Your task to perform on an android device: set the timer Image 0: 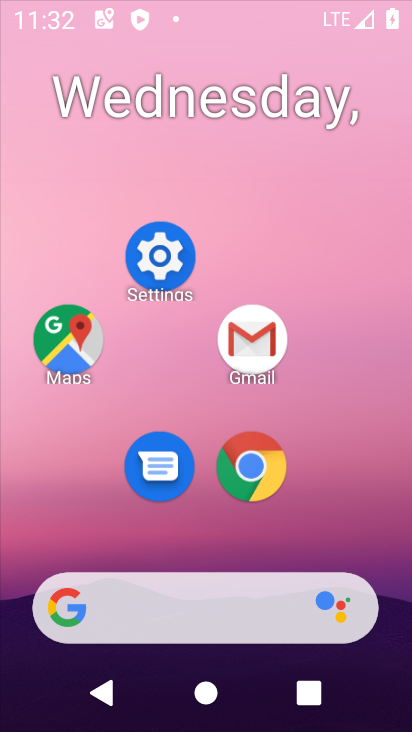
Step 0: click (277, 83)
Your task to perform on an android device: set the timer Image 1: 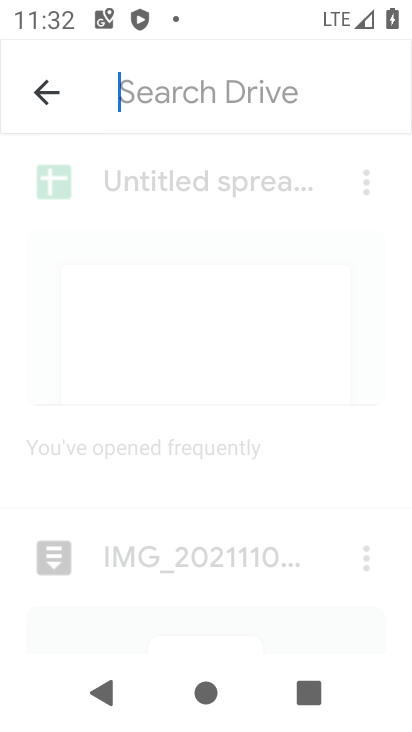
Step 1: drag from (171, 526) to (226, 145)
Your task to perform on an android device: set the timer Image 2: 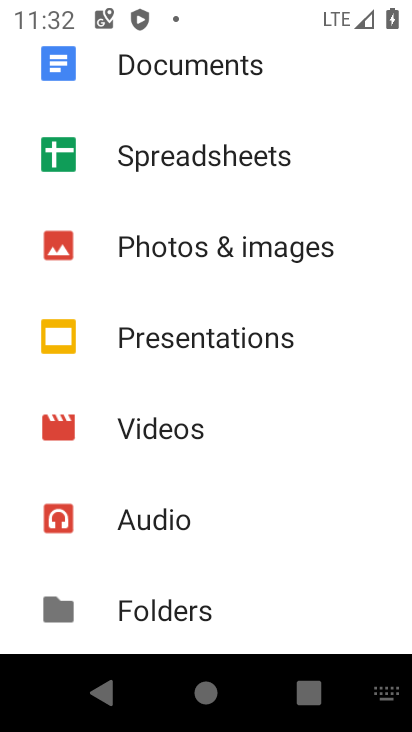
Step 2: press home button
Your task to perform on an android device: set the timer Image 3: 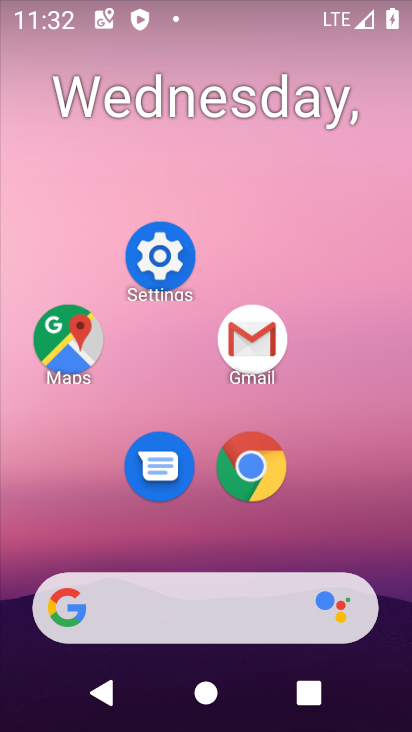
Step 3: drag from (176, 454) to (243, 147)
Your task to perform on an android device: set the timer Image 4: 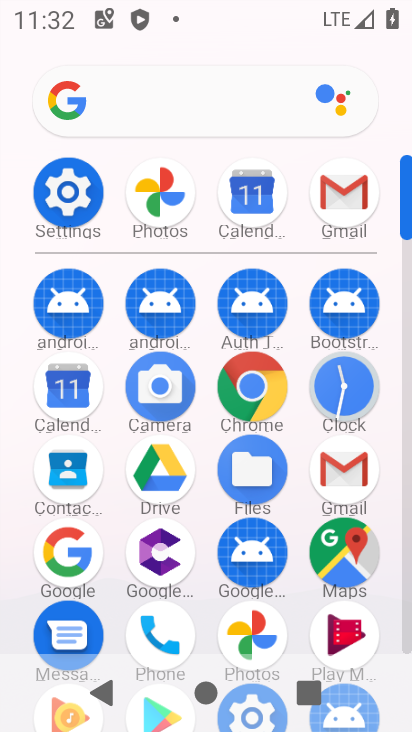
Step 4: click (349, 385)
Your task to perform on an android device: set the timer Image 5: 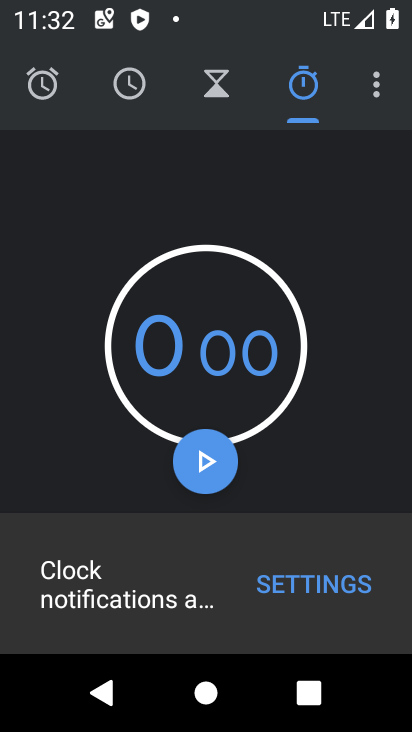
Step 5: click (372, 98)
Your task to perform on an android device: set the timer Image 6: 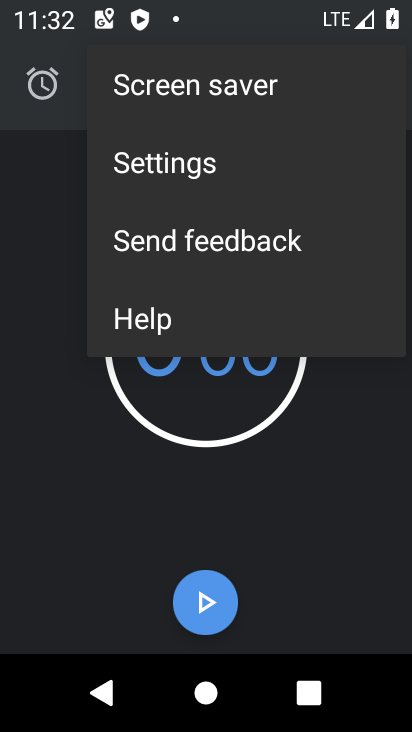
Step 6: click (380, 79)
Your task to perform on an android device: set the timer Image 7: 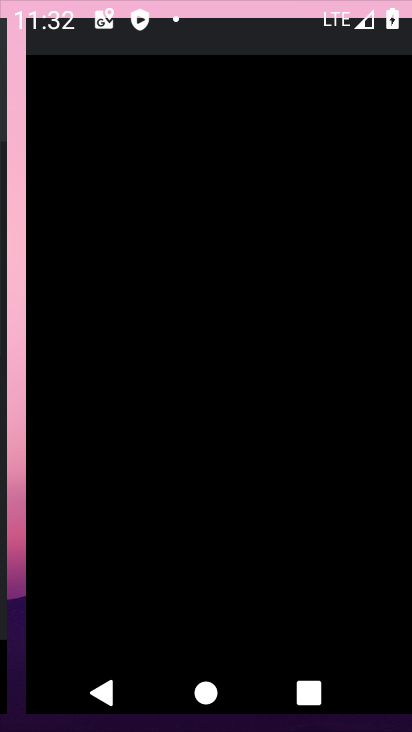
Step 7: click (204, 173)
Your task to perform on an android device: set the timer Image 8: 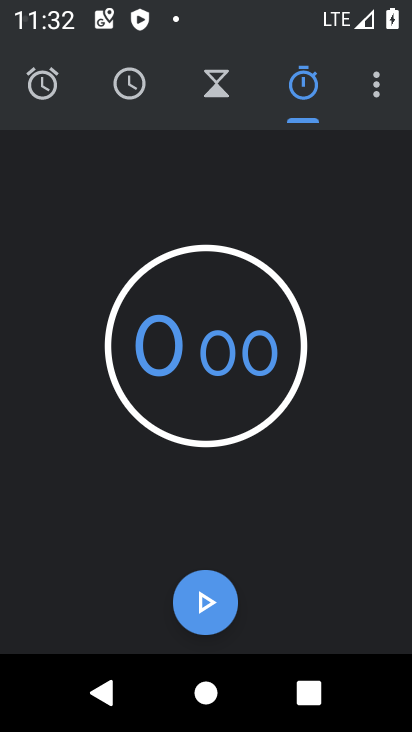
Step 8: click (224, 81)
Your task to perform on an android device: set the timer Image 9: 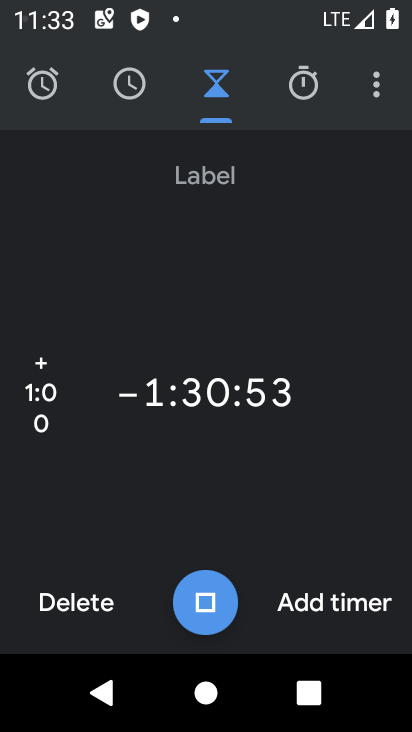
Step 9: click (72, 602)
Your task to perform on an android device: set the timer Image 10: 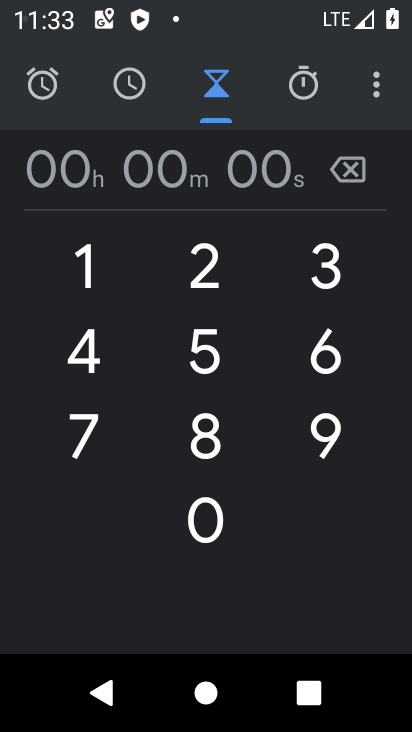
Step 10: click (169, 291)
Your task to perform on an android device: set the timer Image 11: 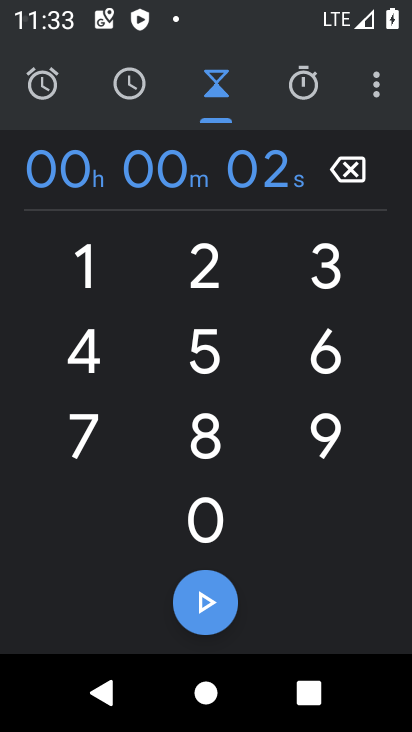
Step 11: click (210, 344)
Your task to perform on an android device: set the timer Image 12: 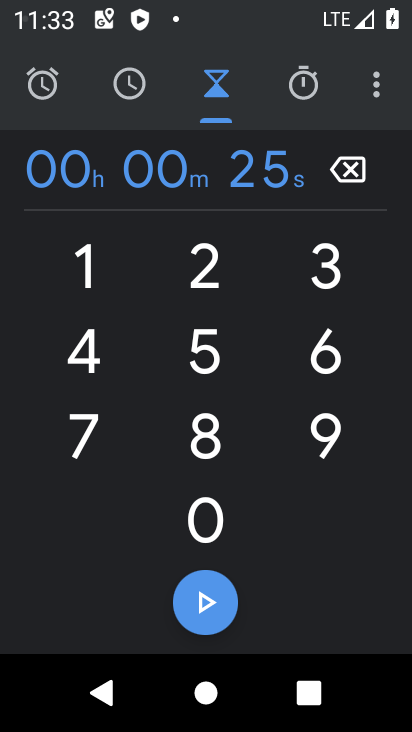
Step 12: click (193, 611)
Your task to perform on an android device: set the timer Image 13: 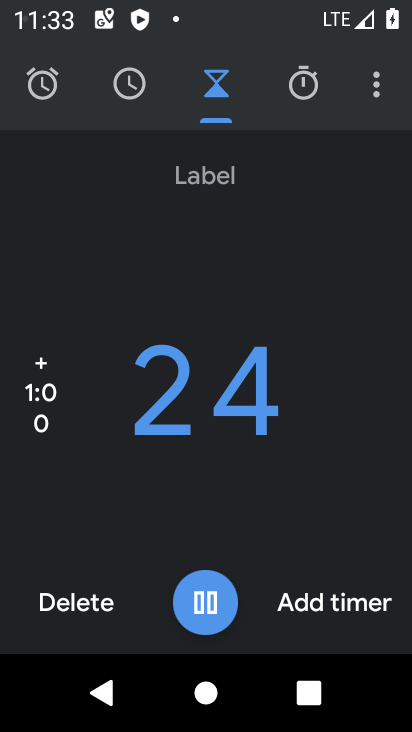
Step 13: task complete